Your task to perform on an android device: Open the calendar and show me this week's events Image 0: 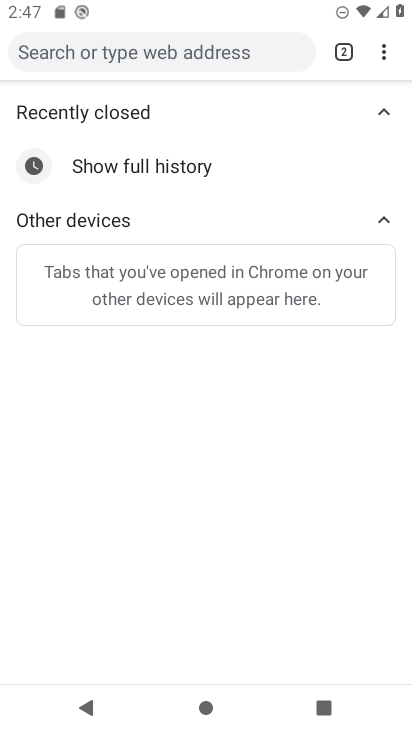
Step 0: press home button
Your task to perform on an android device: Open the calendar and show me this week's events Image 1: 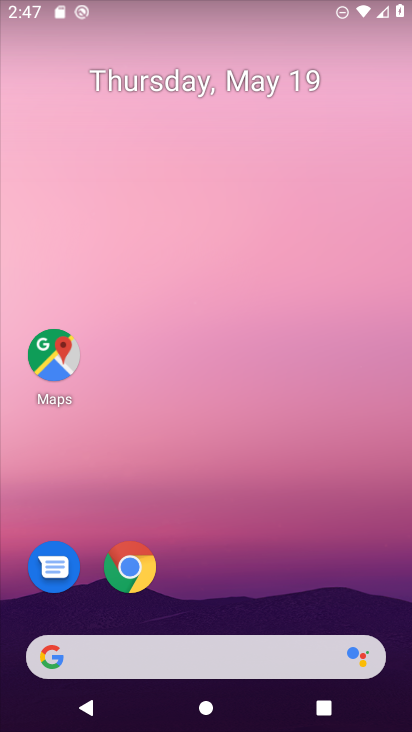
Step 1: drag from (240, 551) to (252, 78)
Your task to perform on an android device: Open the calendar and show me this week's events Image 2: 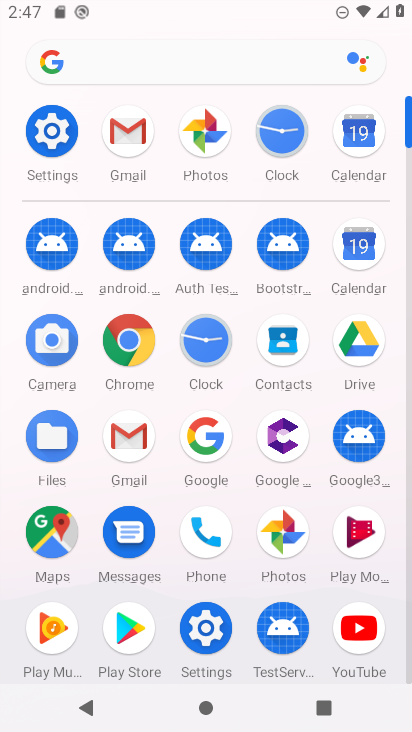
Step 2: click (359, 125)
Your task to perform on an android device: Open the calendar and show me this week's events Image 3: 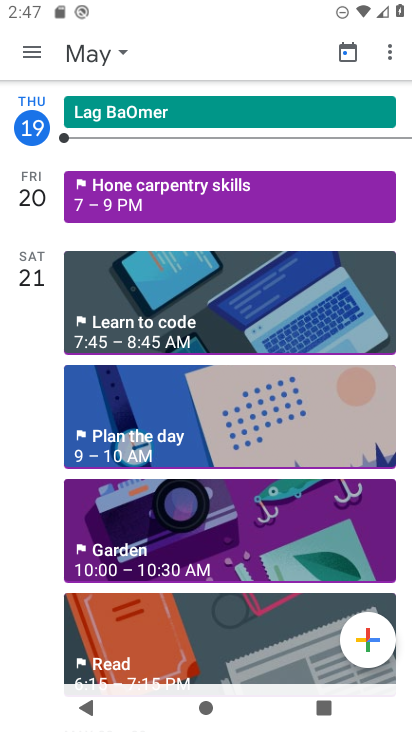
Step 3: click (34, 54)
Your task to perform on an android device: Open the calendar and show me this week's events Image 4: 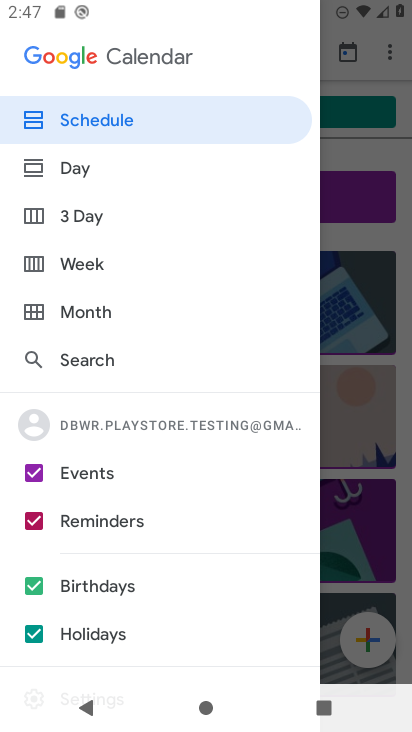
Step 4: click (41, 263)
Your task to perform on an android device: Open the calendar and show me this week's events Image 5: 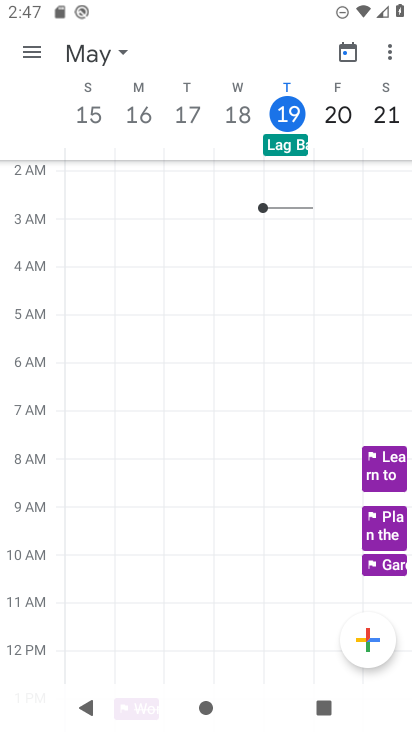
Step 5: task complete